Your task to perform on an android device: toggle javascript in the chrome app Image 0: 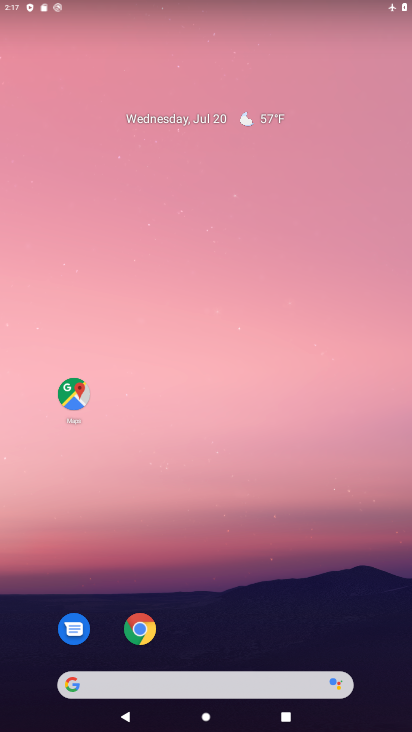
Step 0: click (151, 626)
Your task to perform on an android device: toggle javascript in the chrome app Image 1: 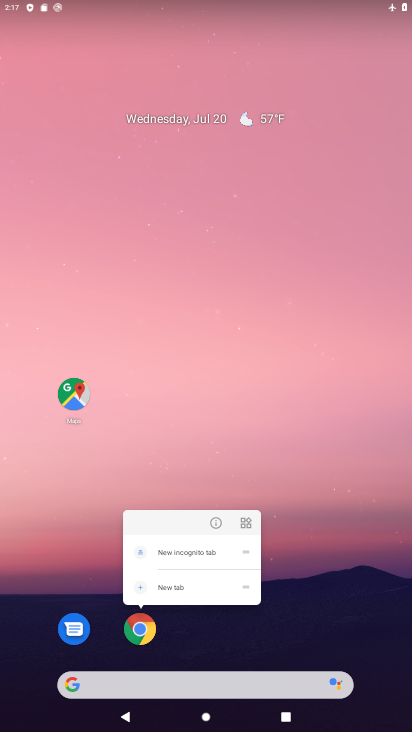
Step 1: click (150, 631)
Your task to perform on an android device: toggle javascript in the chrome app Image 2: 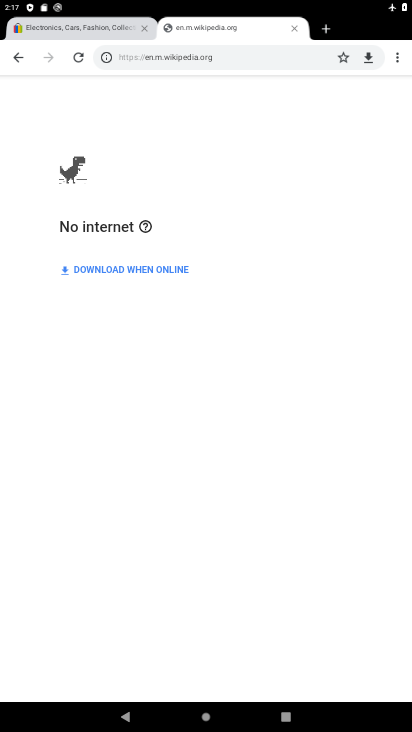
Step 2: click (400, 60)
Your task to perform on an android device: toggle javascript in the chrome app Image 3: 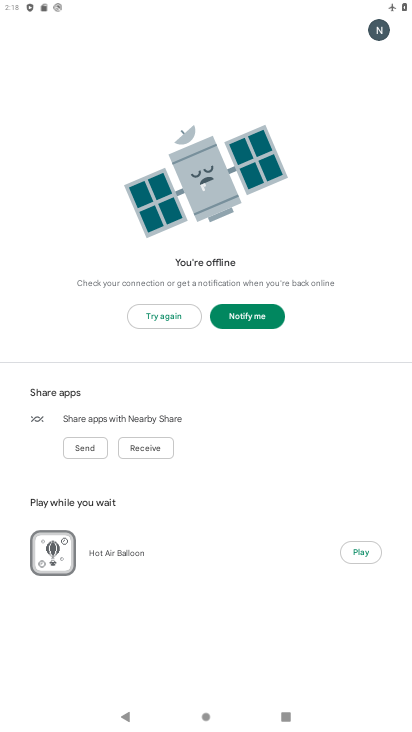
Step 3: press back button
Your task to perform on an android device: toggle javascript in the chrome app Image 4: 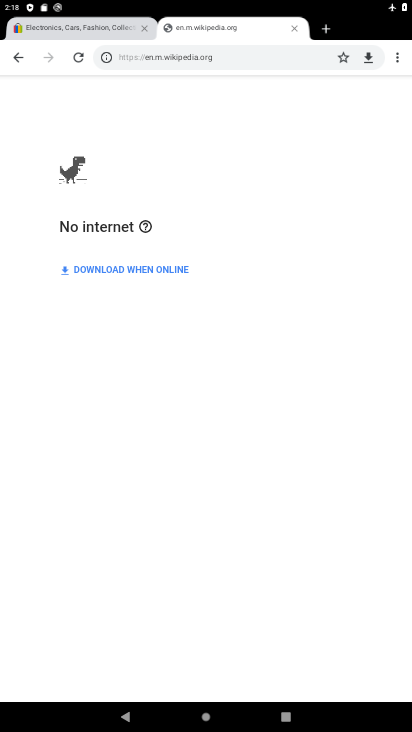
Step 4: click (397, 57)
Your task to perform on an android device: toggle javascript in the chrome app Image 5: 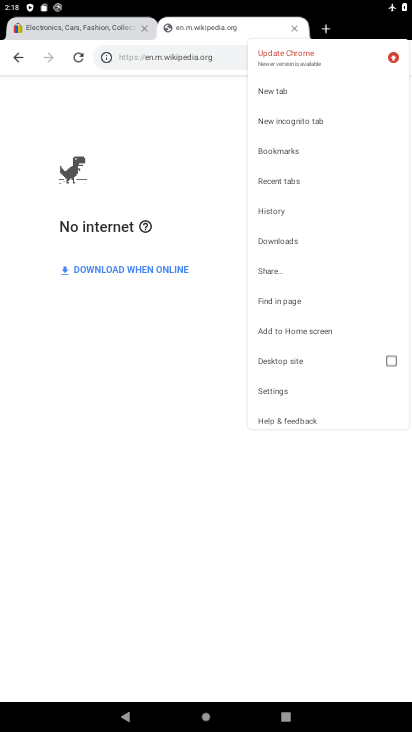
Step 5: click (315, 387)
Your task to perform on an android device: toggle javascript in the chrome app Image 6: 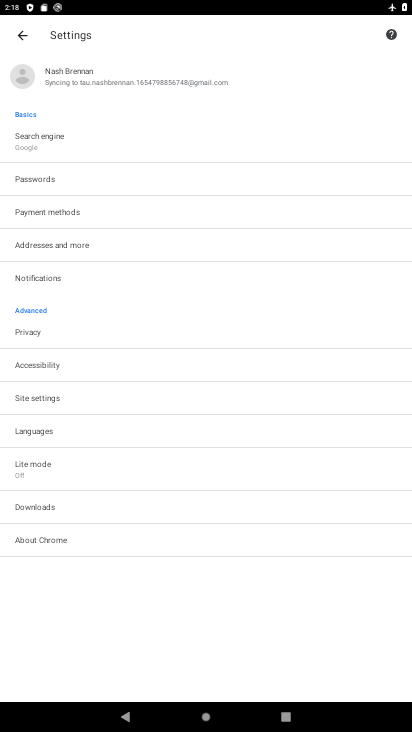
Step 6: click (35, 399)
Your task to perform on an android device: toggle javascript in the chrome app Image 7: 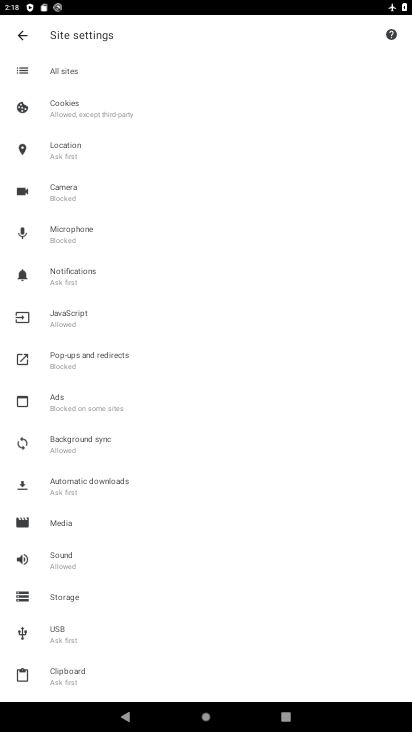
Step 7: click (57, 326)
Your task to perform on an android device: toggle javascript in the chrome app Image 8: 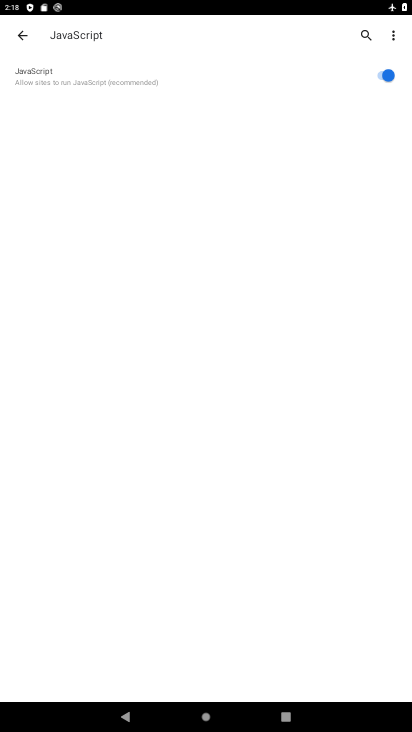
Step 8: click (369, 77)
Your task to perform on an android device: toggle javascript in the chrome app Image 9: 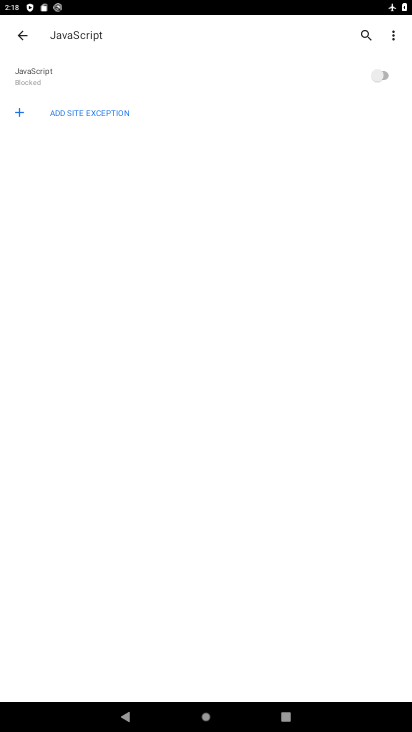
Step 9: task complete